Your task to perform on an android device: delete location history Image 0: 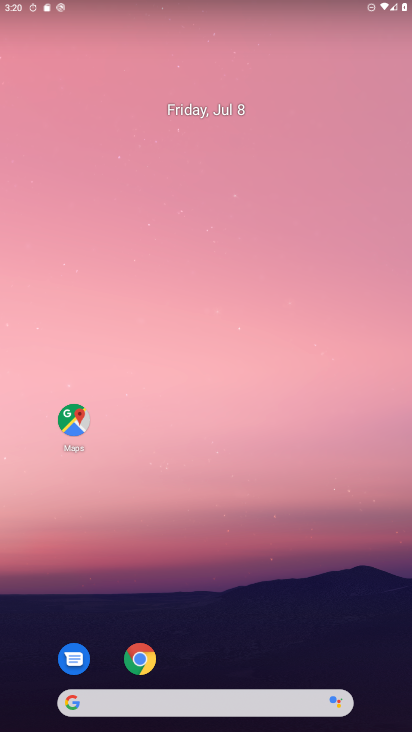
Step 0: click (74, 419)
Your task to perform on an android device: delete location history Image 1: 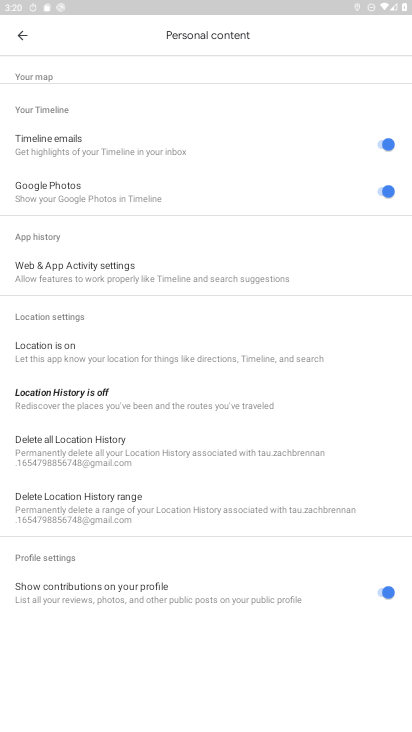
Step 1: click (84, 447)
Your task to perform on an android device: delete location history Image 2: 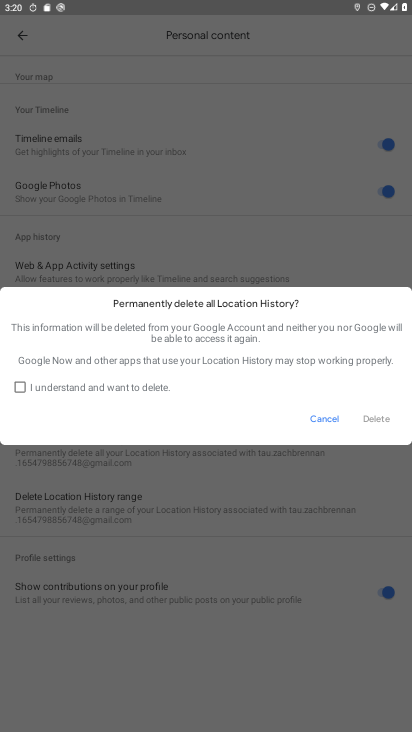
Step 2: click (103, 394)
Your task to perform on an android device: delete location history Image 3: 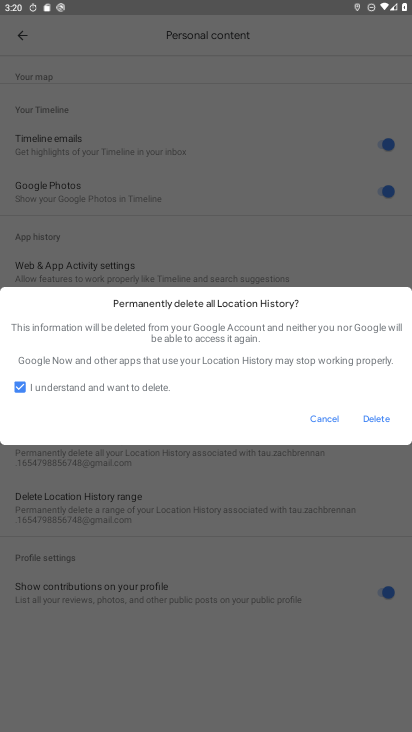
Step 3: click (376, 421)
Your task to perform on an android device: delete location history Image 4: 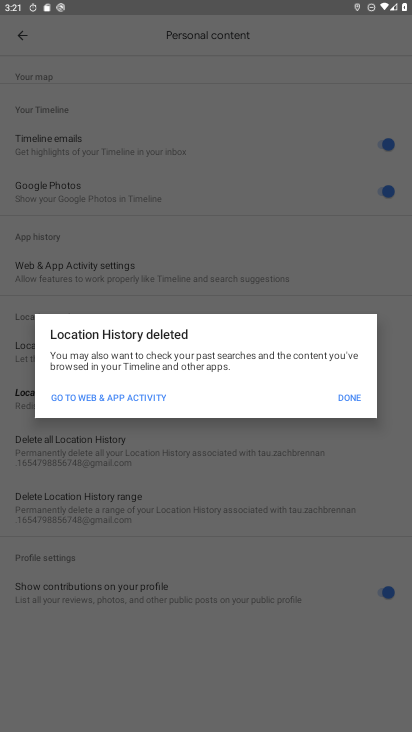
Step 4: click (356, 392)
Your task to perform on an android device: delete location history Image 5: 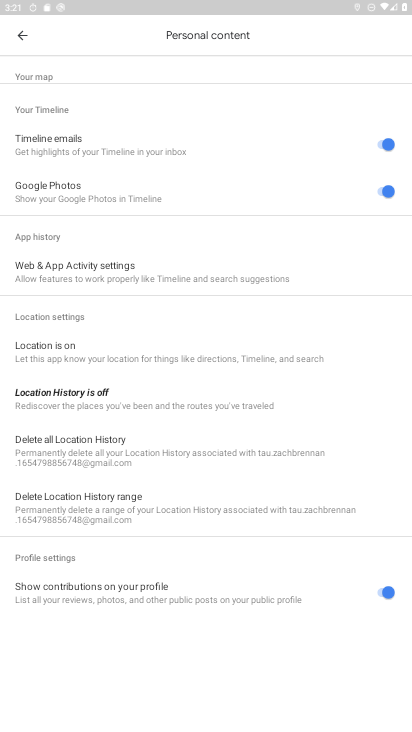
Step 5: task complete